Your task to perform on an android device: Open Google Maps and go to "Timeline" Image 0: 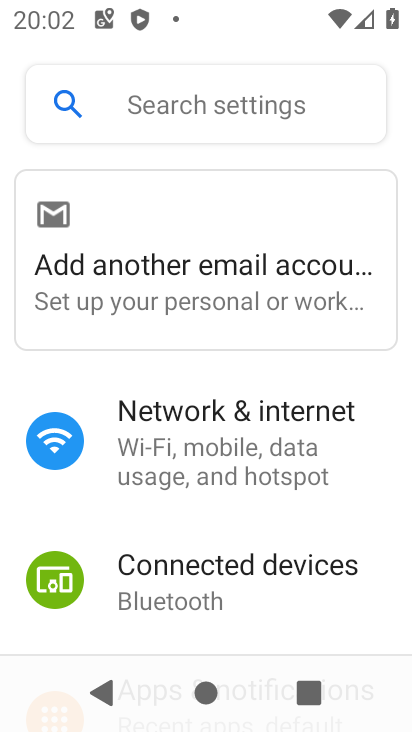
Step 0: press home button
Your task to perform on an android device: Open Google Maps and go to "Timeline" Image 1: 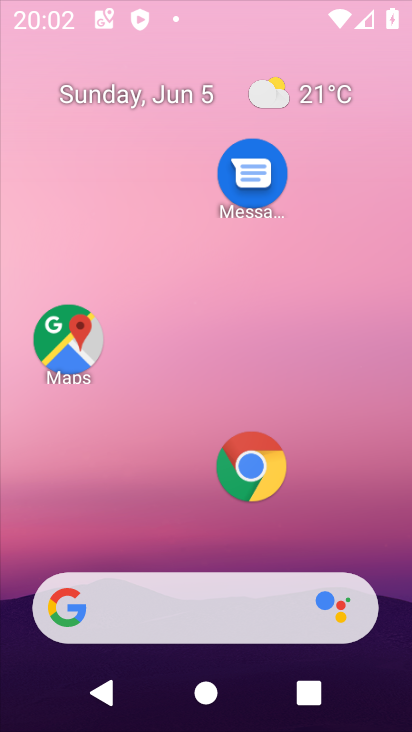
Step 1: drag from (274, 549) to (164, 11)
Your task to perform on an android device: Open Google Maps and go to "Timeline" Image 2: 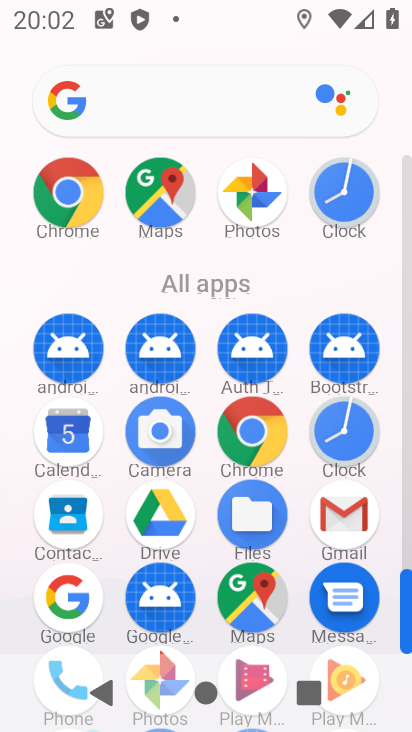
Step 2: click (171, 189)
Your task to perform on an android device: Open Google Maps and go to "Timeline" Image 3: 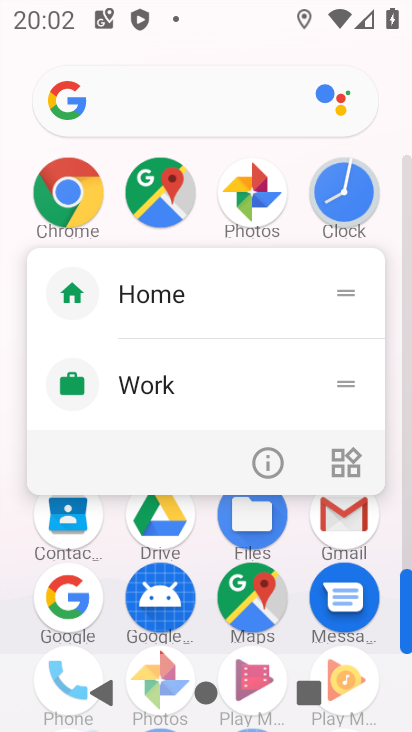
Step 3: click (268, 464)
Your task to perform on an android device: Open Google Maps and go to "Timeline" Image 4: 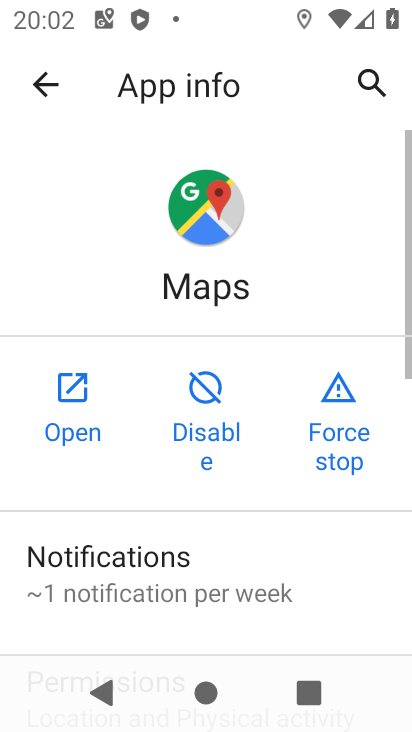
Step 4: click (71, 404)
Your task to perform on an android device: Open Google Maps and go to "Timeline" Image 5: 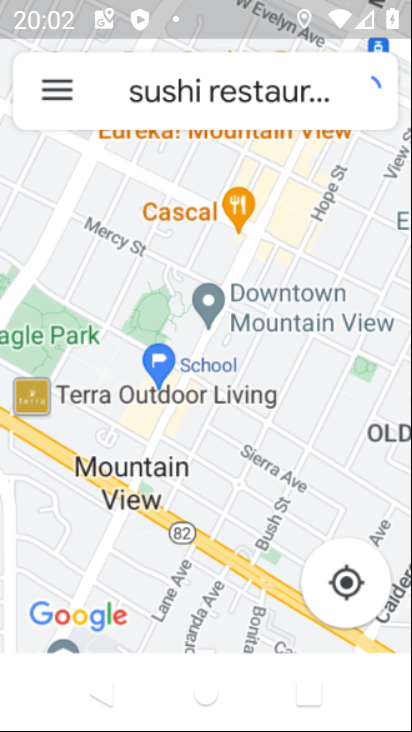
Step 5: drag from (248, 567) to (234, 712)
Your task to perform on an android device: Open Google Maps and go to "Timeline" Image 6: 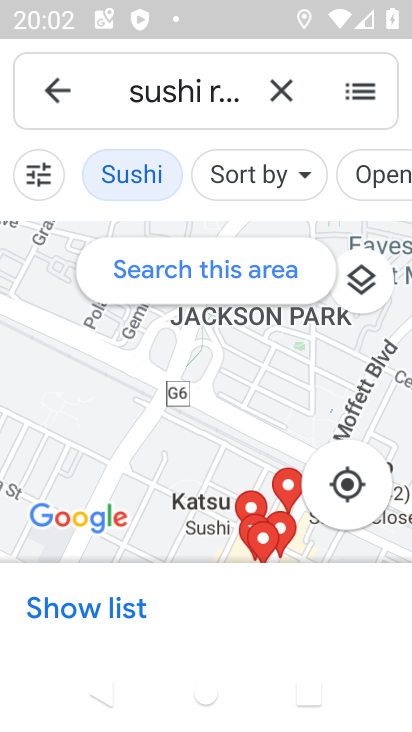
Step 6: drag from (392, 389) to (411, 67)
Your task to perform on an android device: Open Google Maps and go to "Timeline" Image 7: 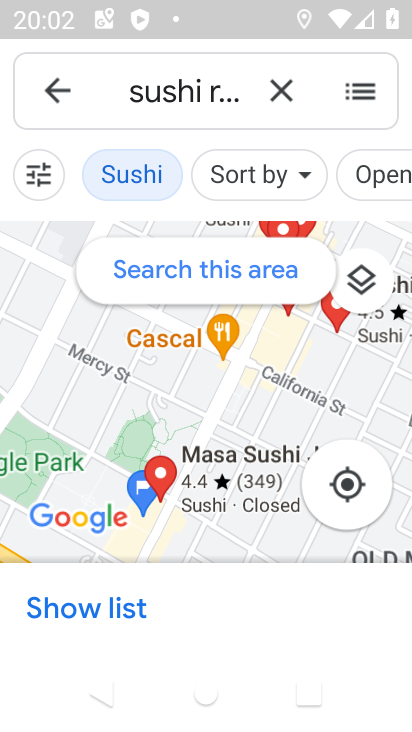
Step 7: click (82, 107)
Your task to perform on an android device: Open Google Maps and go to "Timeline" Image 8: 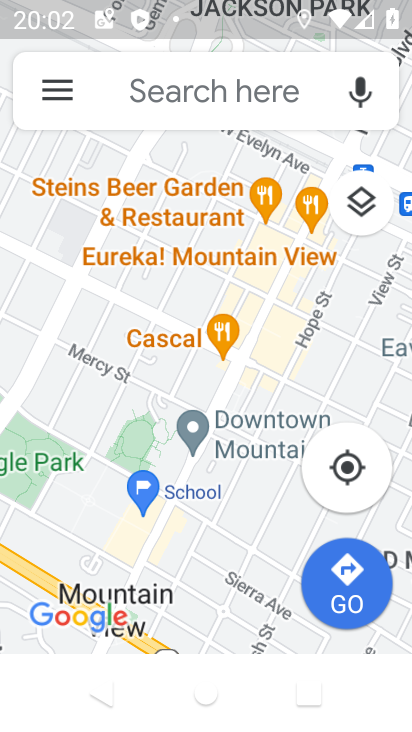
Step 8: click (69, 103)
Your task to perform on an android device: Open Google Maps and go to "Timeline" Image 9: 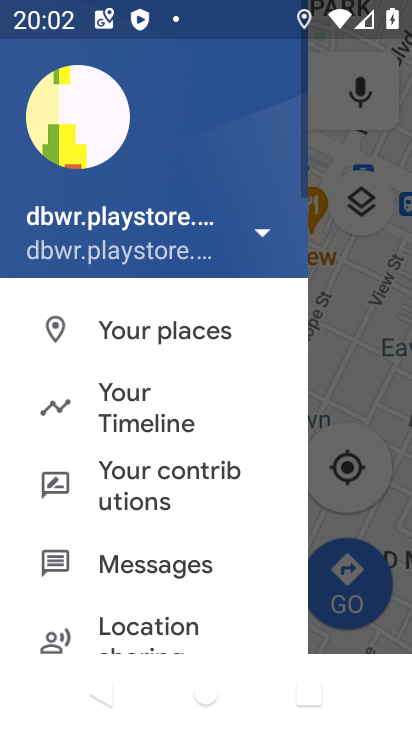
Step 9: drag from (210, 572) to (268, 5)
Your task to perform on an android device: Open Google Maps and go to "Timeline" Image 10: 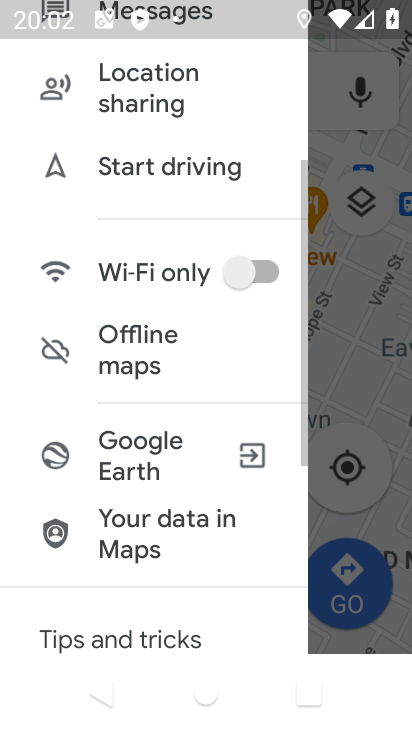
Step 10: drag from (177, 555) to (217, 213)
Your task to perform on an android device: Open Google Maps and go to "Timeline" Image 11: 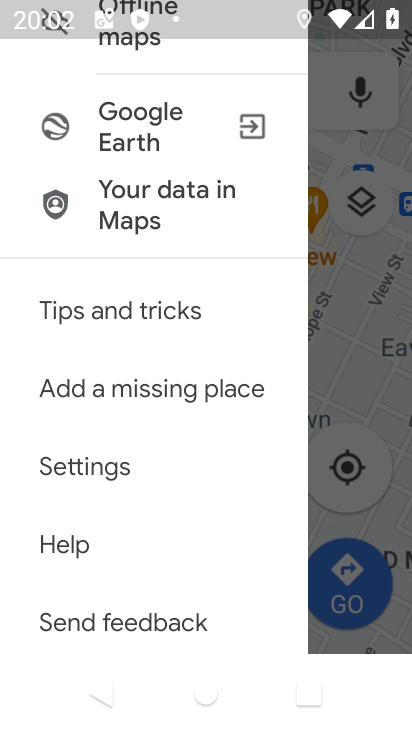
Step 11: click (96, 457)
Your task to perform on an android device: Open Google Maps and go to "Timeline" Image 12: 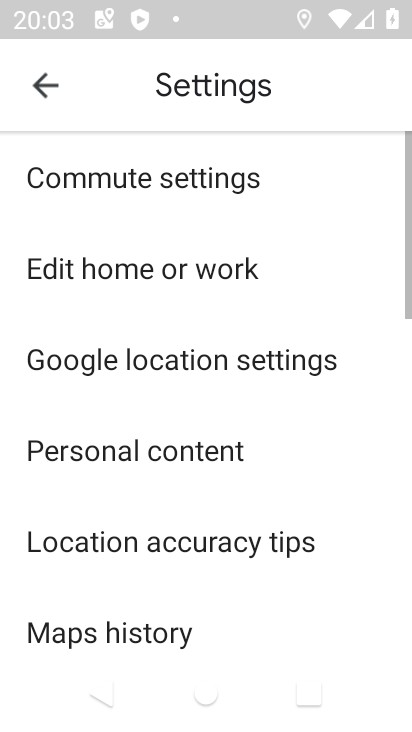
Step 12: click (34, 81)
Your task to perform on an android device: Open Google Maps and go to "Timeline" Image 13: 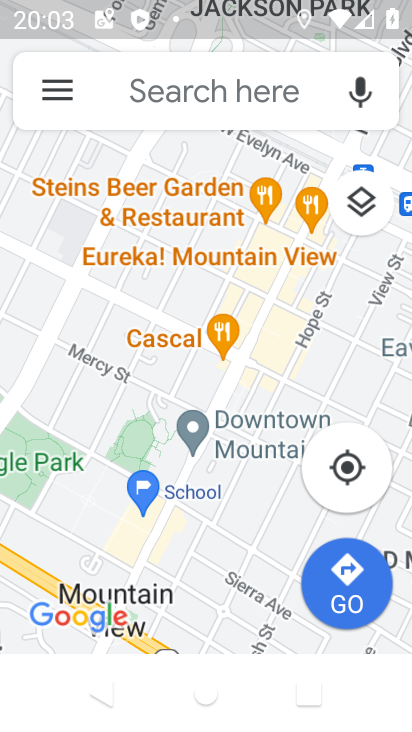
Step 13: click (45, 79)
Your task to perform on an android device: Open Google Maps and go to "Timeline" Image 14: 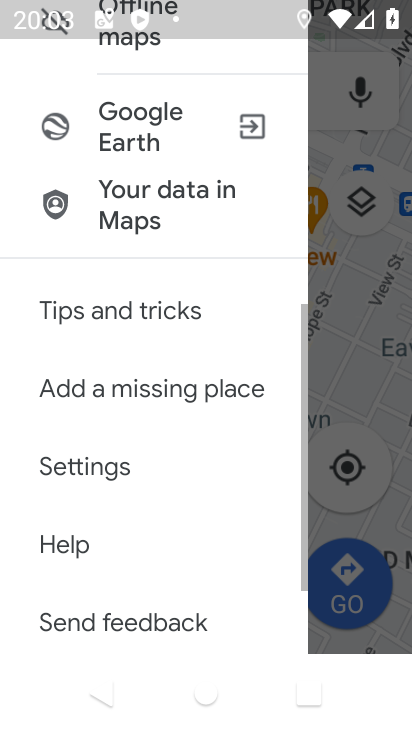
Step 14: drag from (124, 166) to (177, 723)
Your task to perform on an android device: Open Google Maps and go to "Timeline" Image 15: 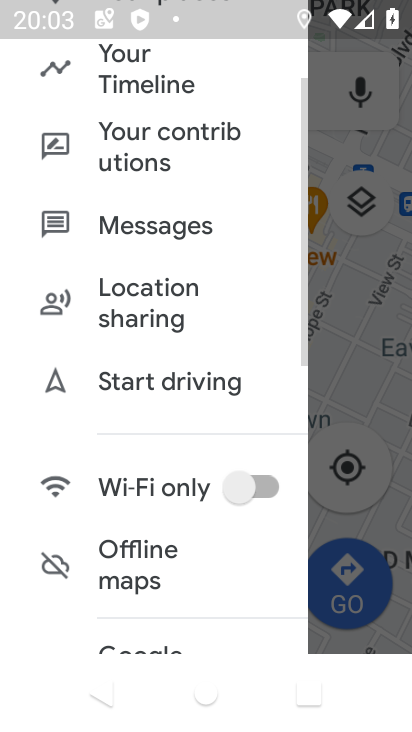
Step 15: drag from (190, 206) to (218, 720)
Your task to perform on an android device: Open Google Maps and go to "Timeline" Image 16: 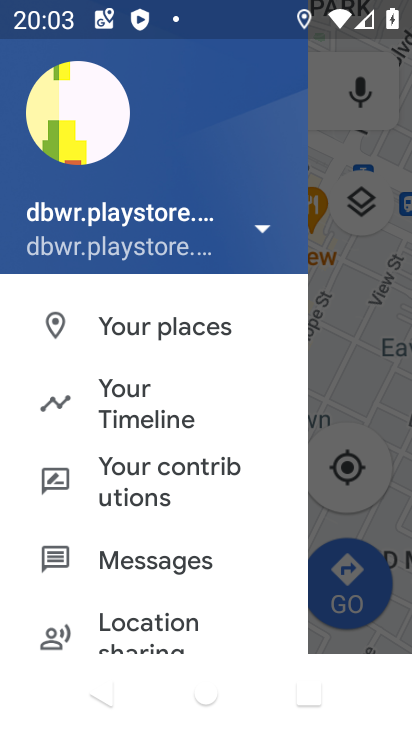
Step 16: click (129, 401)
Your task to perform on an android device: Open Google Maps and go to "Timeline" Image 17: 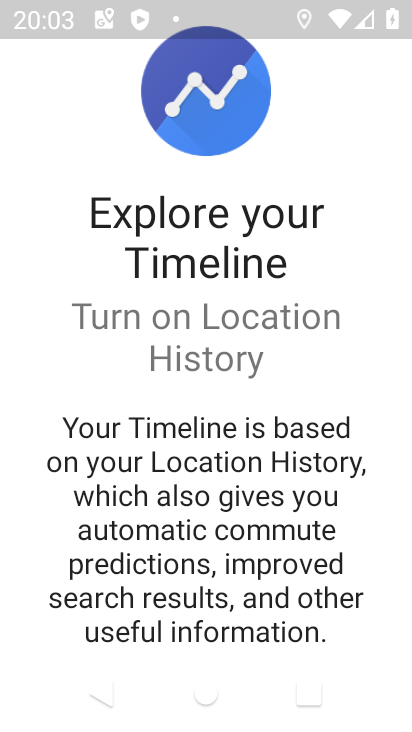
Step 17: drag from (165, 575) to (233, 216)
Your task to perform on an android device: Open Google Maps and go to "Timeline" Image 18: 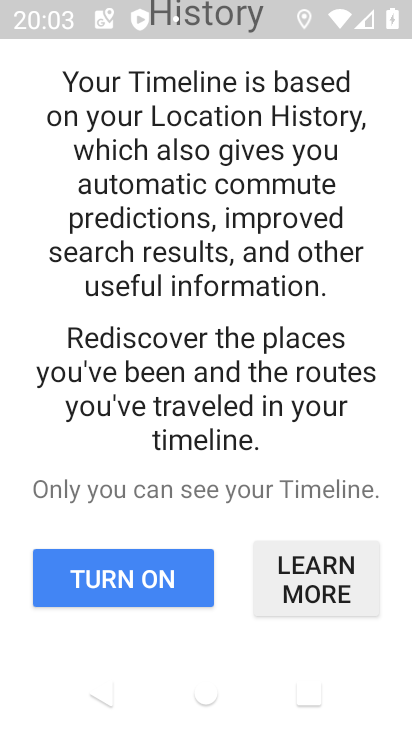
Step 18: click (153, 606)
Your task to perform on an android device: Open Google Maps and go to "Timeline" Image 19: 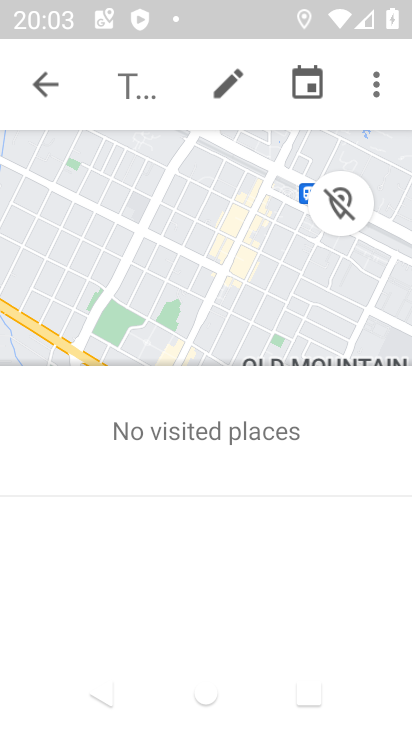
Step 19: task complete